Your task to perform on an android device: What is the recent news? Image 0: 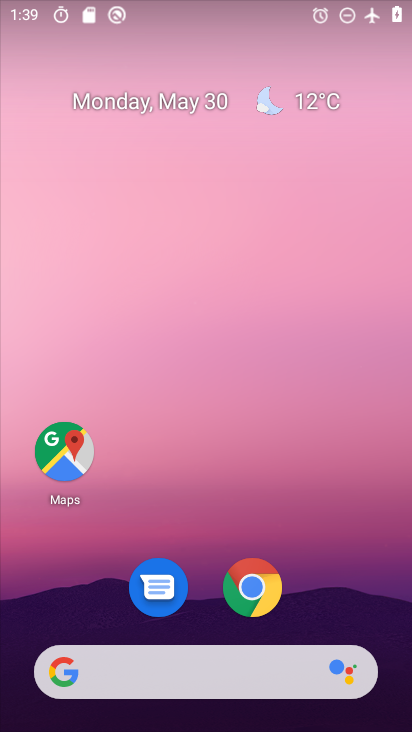
Step 0: drag from (284, 595) to (308, 89)
Your task to perform on an android device: What is the recent news? Image 1: 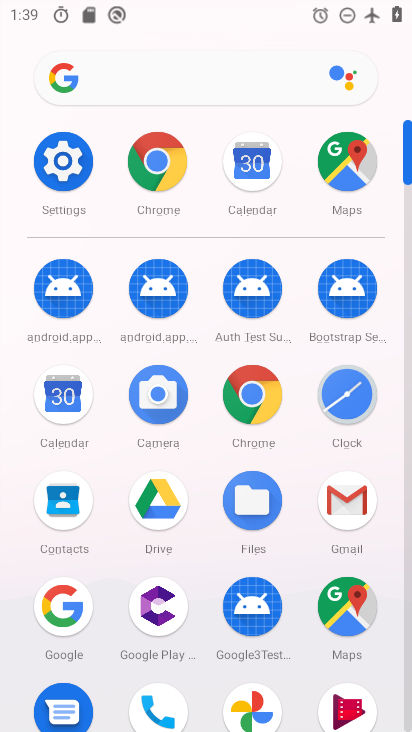
Step 1: click (251, 395)
Your task to perform on an android device: What is the recent news? Image 2: 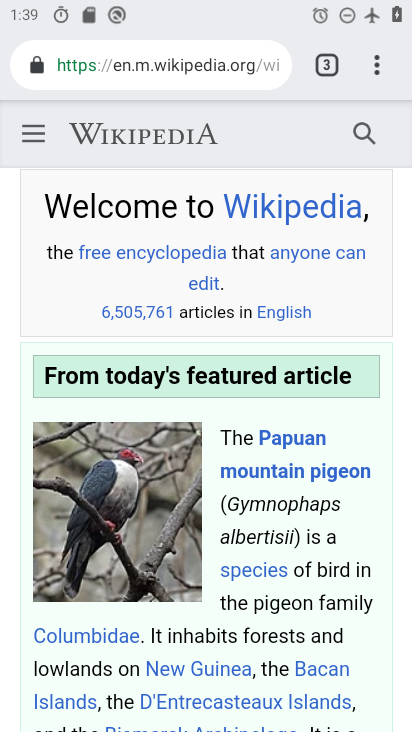
Step 2: click (182, 72)
Your task to perform on an android device: What is the recent news? Image 3: 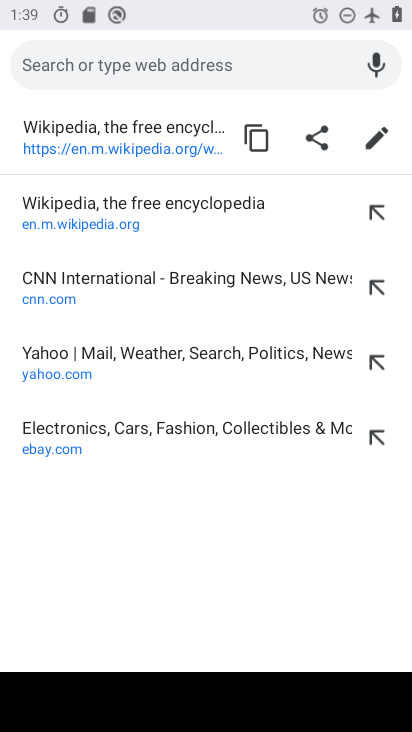
Step 3: type "news"
Your task to perform on an android device: What is the recent news? Image 4: 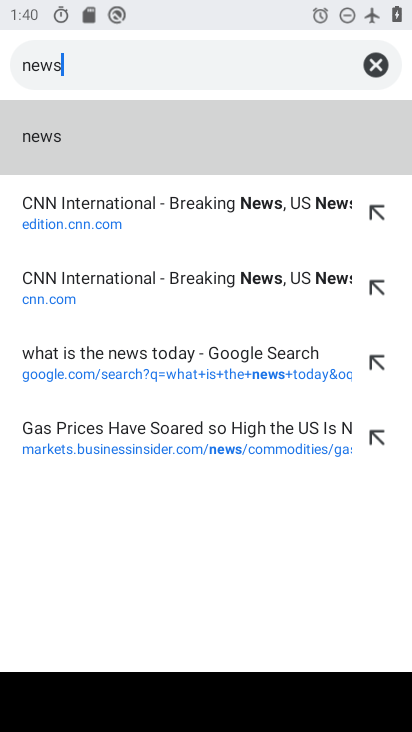
Step 4: click (27, 140)
Your task to perform on an android device: What is the recent news? Image 5: 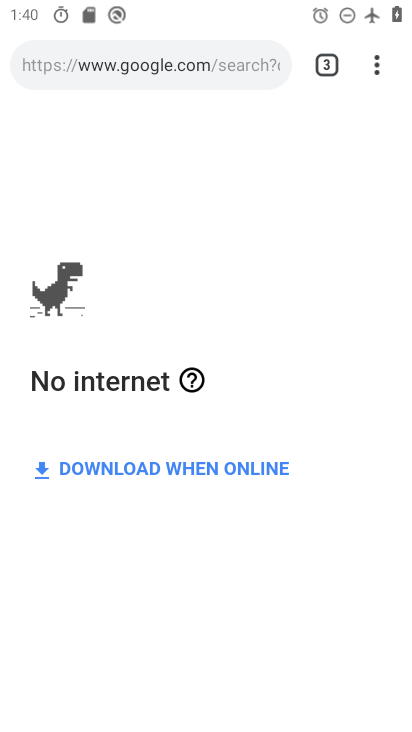
Step 5: task complete